Your task to perform on an android device: toggle wifi Image 0: 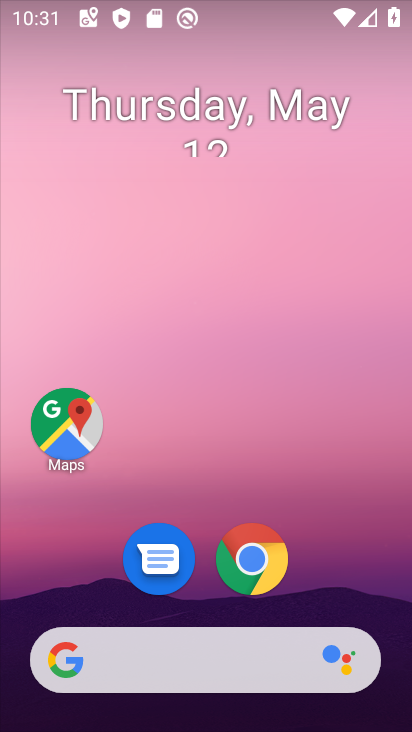
Step 0: drag from (214, 457) to (214, 211)
Your task to perform on an android device: toggle wifi Image 1: 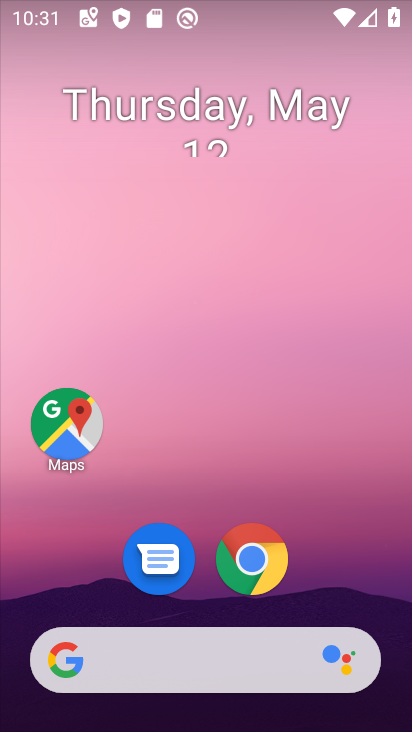
Step 1: drag from (206, 597) to (217, 200)
Your task to perform on an android device: toggle wifi Image 2: 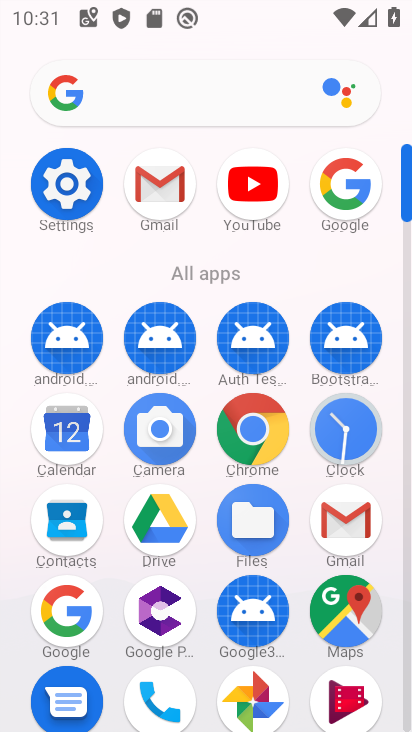
Step 2: click (102, 195)
Your task to perform on an android device: toggle wifi Image 3: 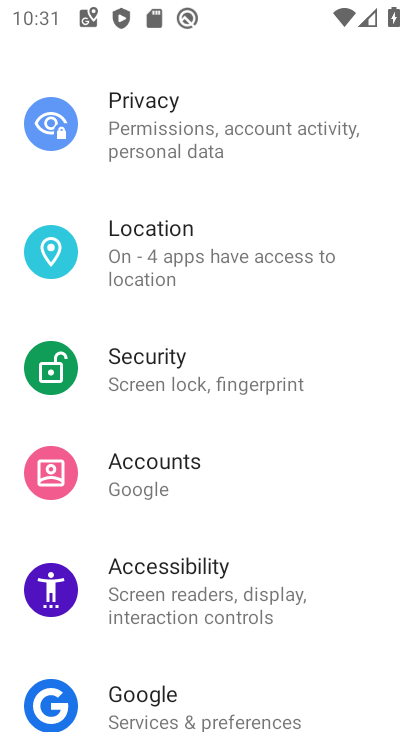
Step 3: drag from (153, 193) to (207, 489)
Your task to perform on an android device: toggle wifi Image 4: 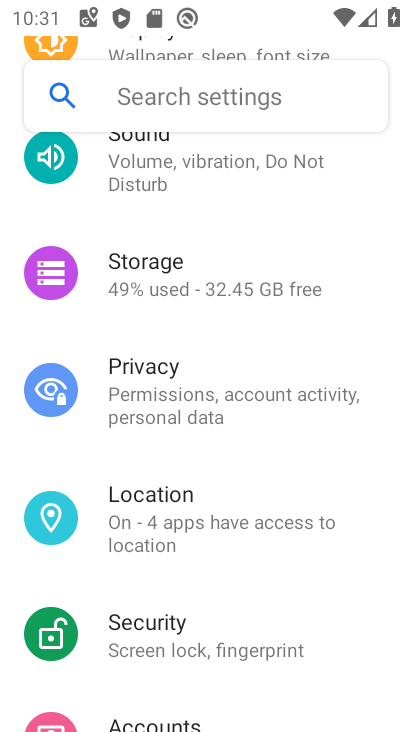
Step 4: drag from (225, 201) to (256, 522)
Your task to perform on an android device: toggle wifi Image 5: 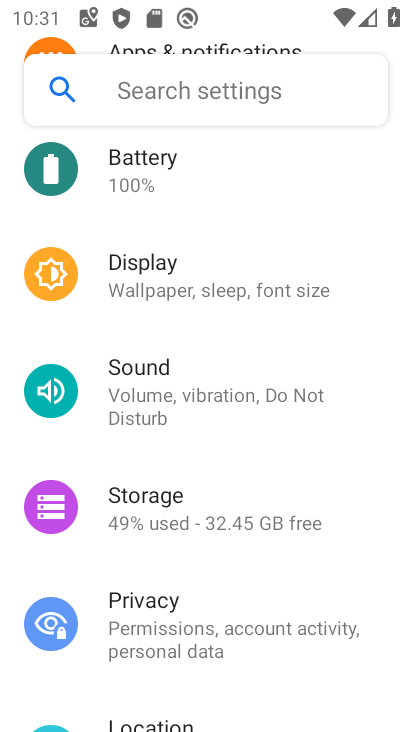
Step 5: drag from (231, 170) to (233, 547)
Your task to perform on an android device: toggle wifi Image 6: 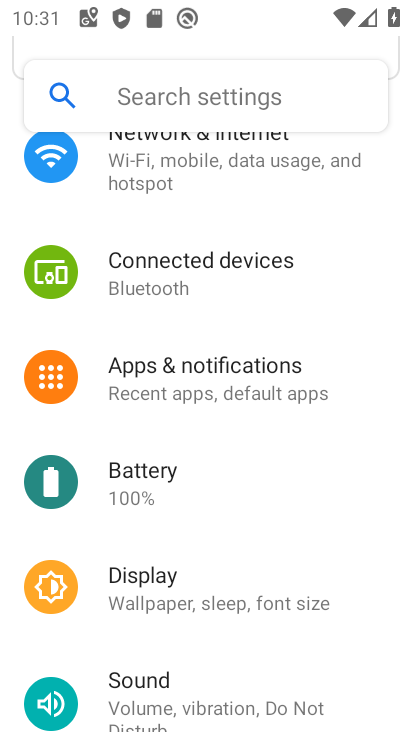
Step 6: drag from (185, 195) to (184, 537)
Your task to perform on an android device: toggle wifi Image 7: 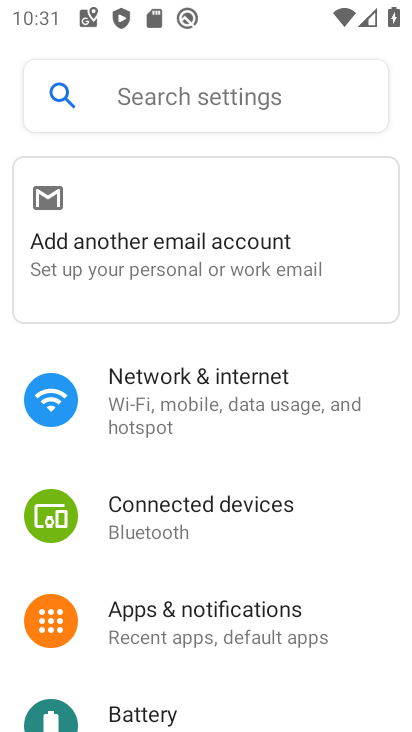
Step 7: click (165, 361)
Your task to perform on an android device: toggle wifi Image 8: 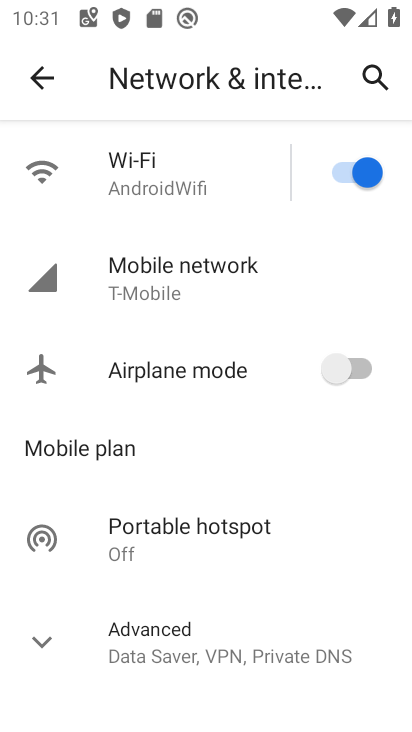
Step 8: click (165, 195)
Your task to perform on an android device: toggle wifi Image 9: 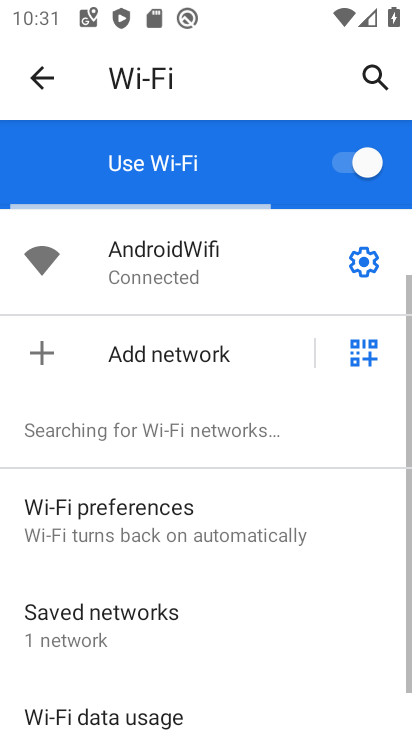
Step 9: click (346, 154)
Your task to perform on an android device: toggle wifi Image 10: 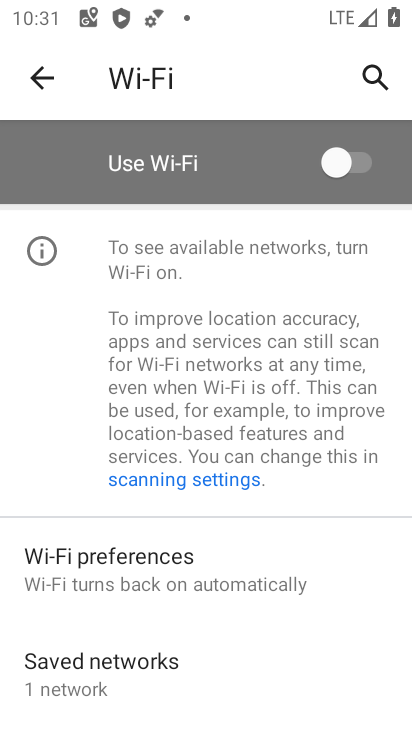
Step 10: task complete